Your task to perform on an android device: Add "macbook" to the cart on newegg Image 0: 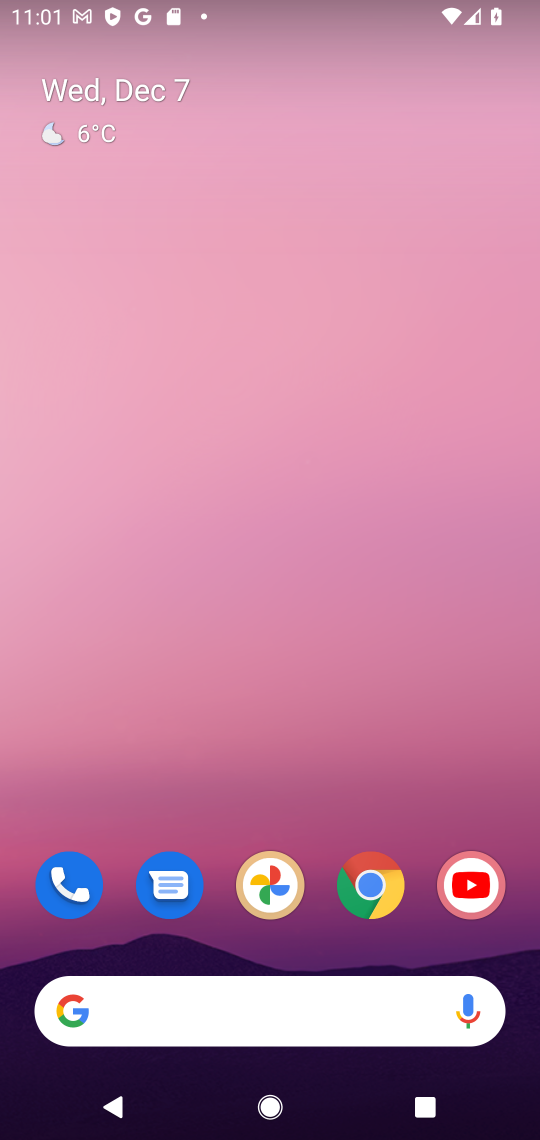
Step 0: click (369, 888)
Your task to perform on an android device: Add "macbook" to the cart on newegg Image 1: 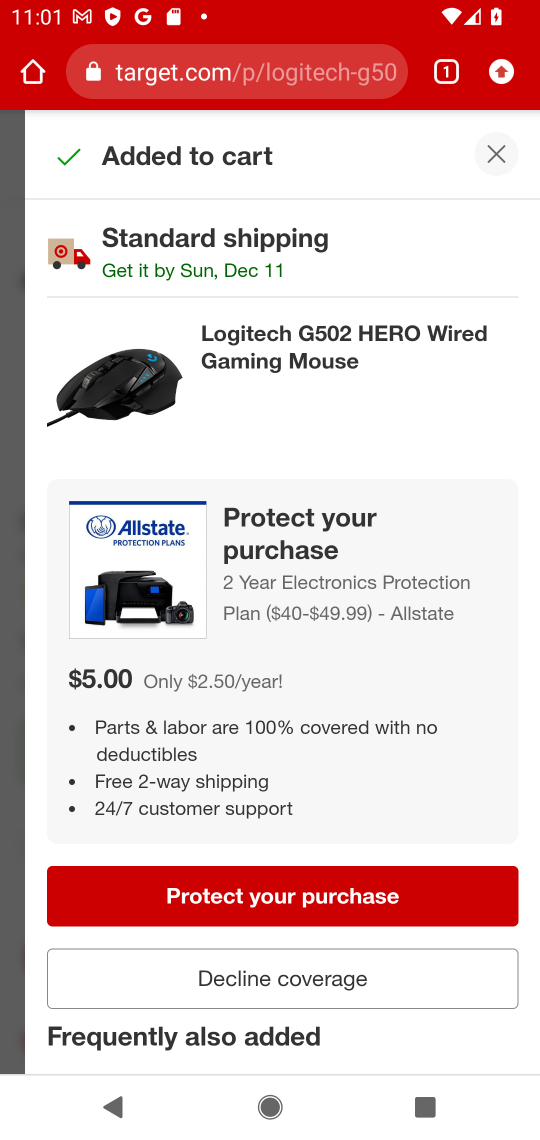
Step 1: click (290, 68)
Your task to perform on an android device: Add "macbook" to the cart on newegg Image 2: 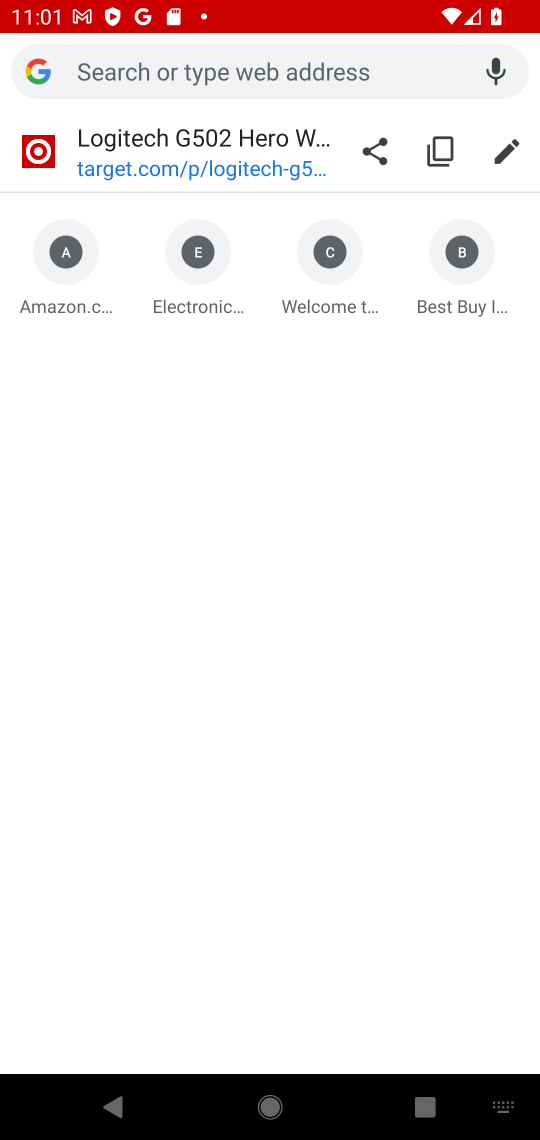
Step 2: type "NEWEGG"
Your task to perform on an android device: Add "macbook" to the cart on newegg Image 3: 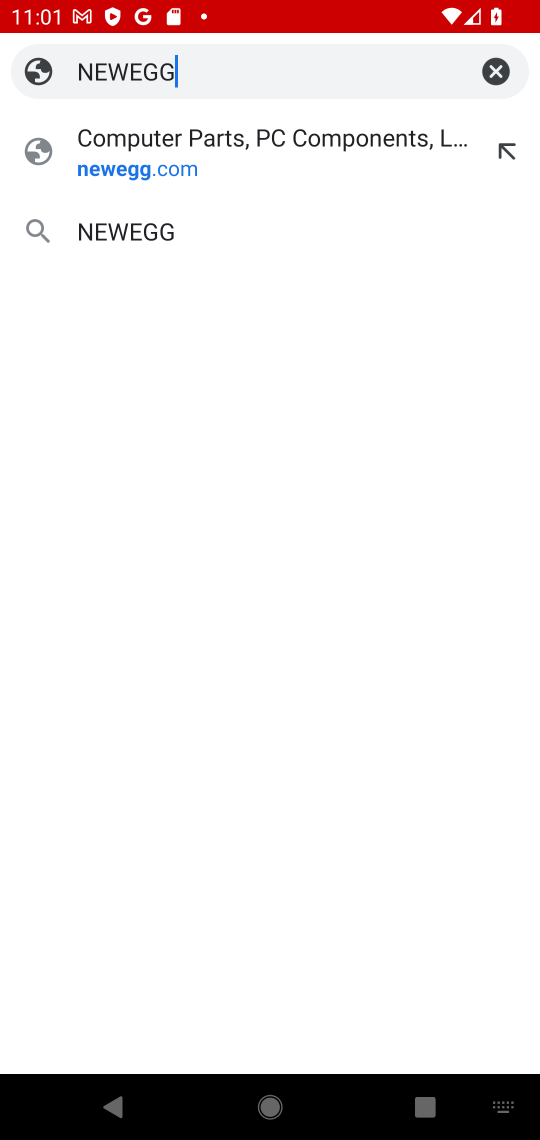
Step 3: click (205, 162)
Your task to perform on an android device: Add "macbook" to the cart on newegg Image 4: 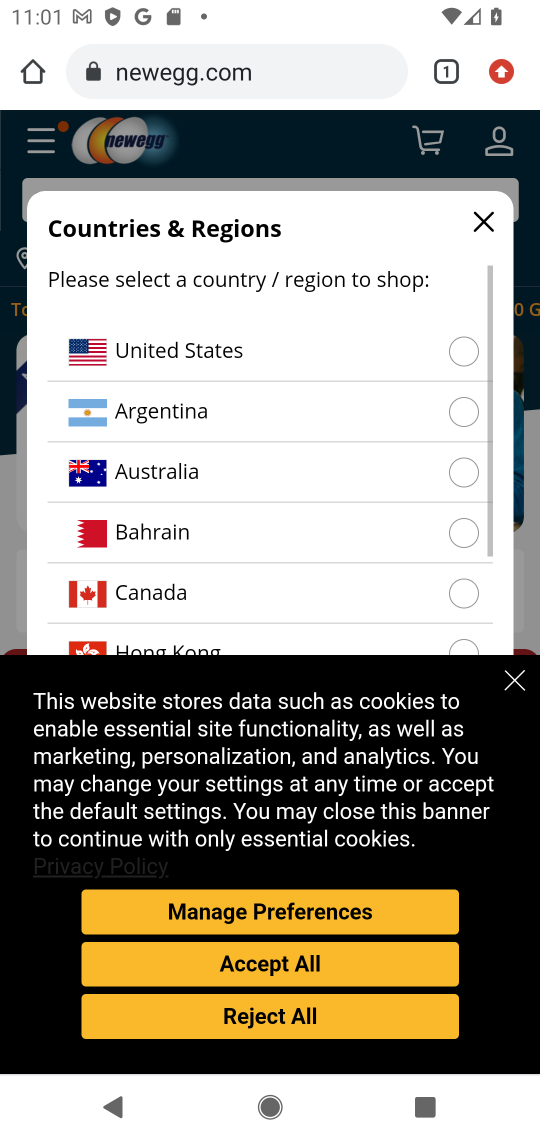
Step 4: click (284, 359)
Your task to perform on an android device: Add "macbook" to the cart on newegg Image 5: 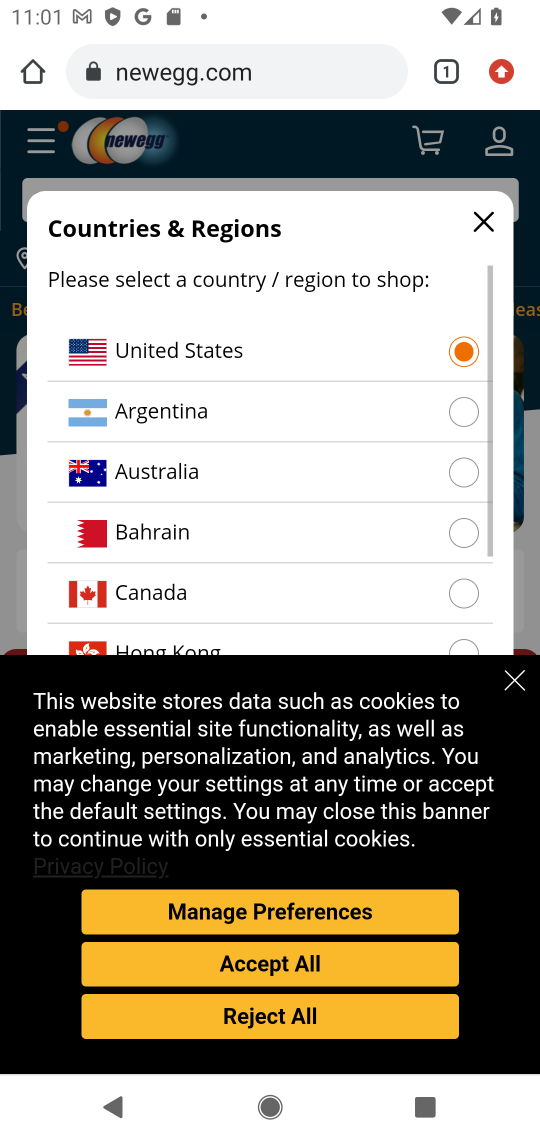
Step 5: click (515, 686)
Your task to perform on an android device: Add "macbook" to the cart on newegg Image 6: 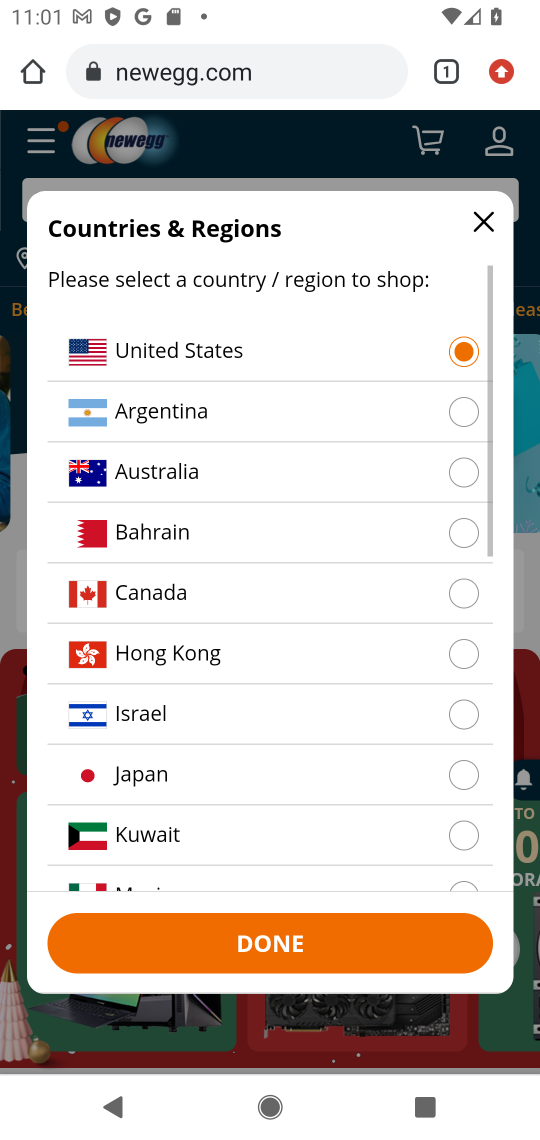
Step 6: click (337, 944)
Your task to perform on an android device: Add "macbook" to the cart on newegg Image 7: 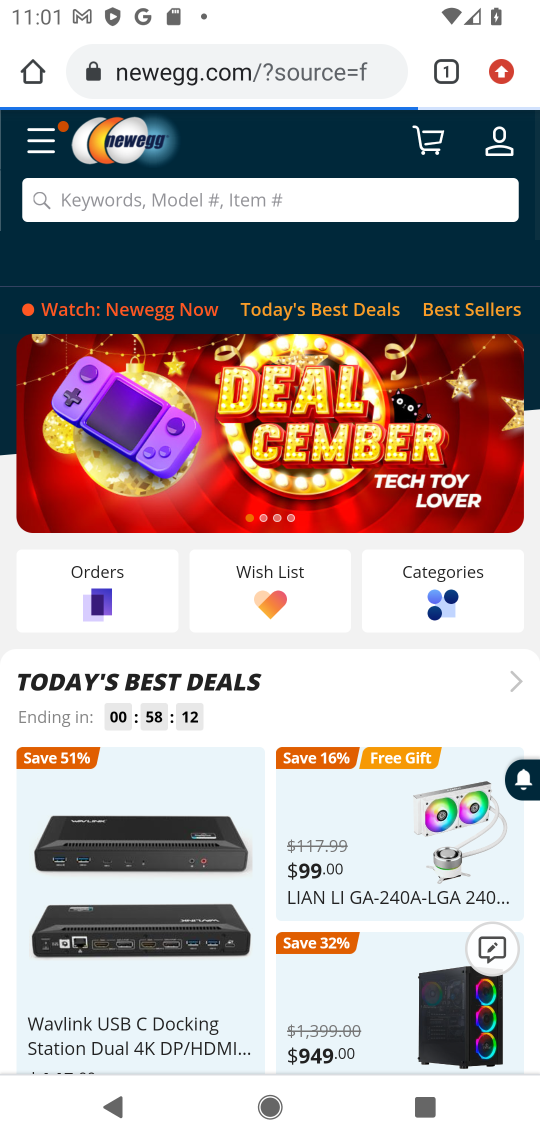
Step 7: click (278, 201)
Your task to perform on an android device: Add "macbook" to the cart on newegg Image 8: 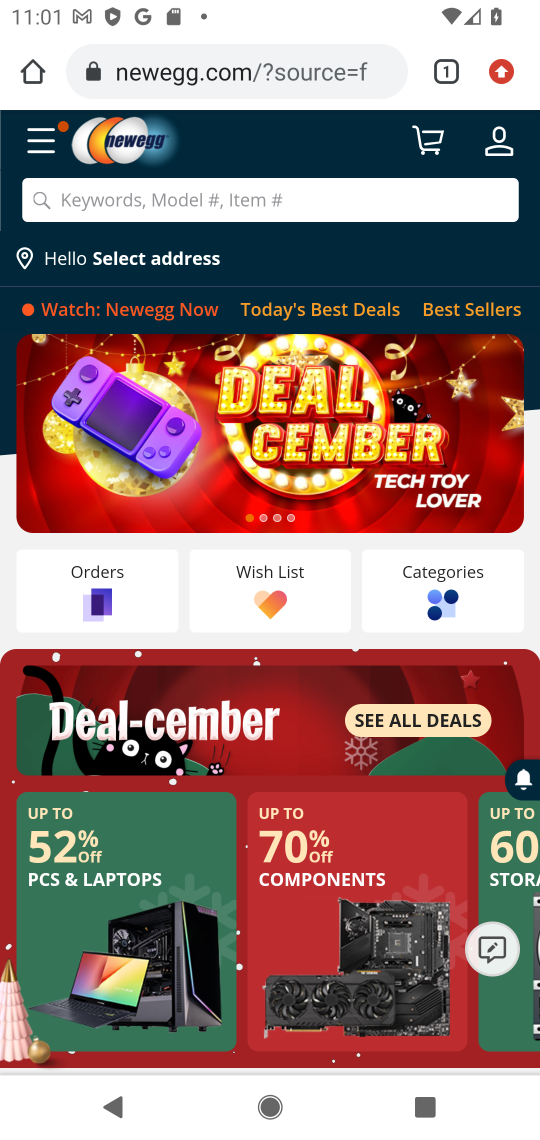
Step 8: click (278, 201)
Your task to perform on an android device: Add "macbook" to the cart on newegg Image 9: 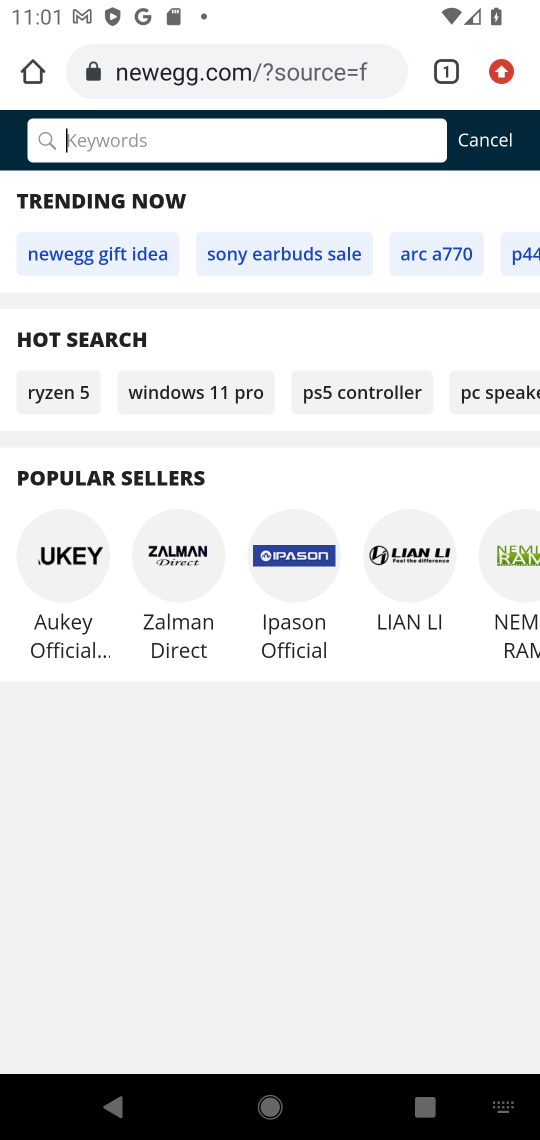
Step 9: type "MACBOOK"
Your task to perform on an android device: Add "macbook" to the cart on newegg Image 10: 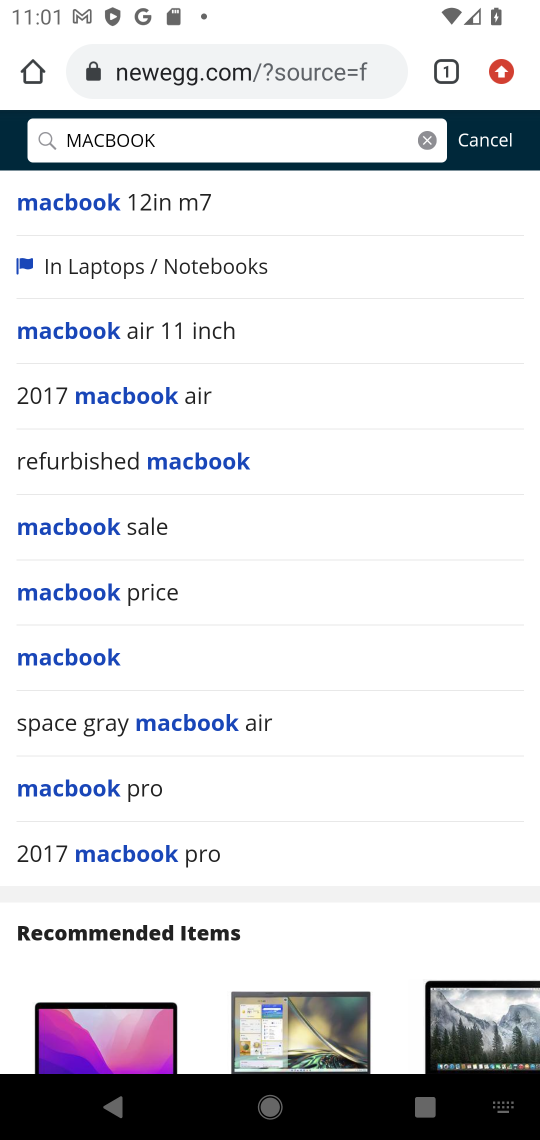
Step 10: click (97, 207)
Your task to perform on an android device: Add "macbook" to the cart on newegg Image 11: 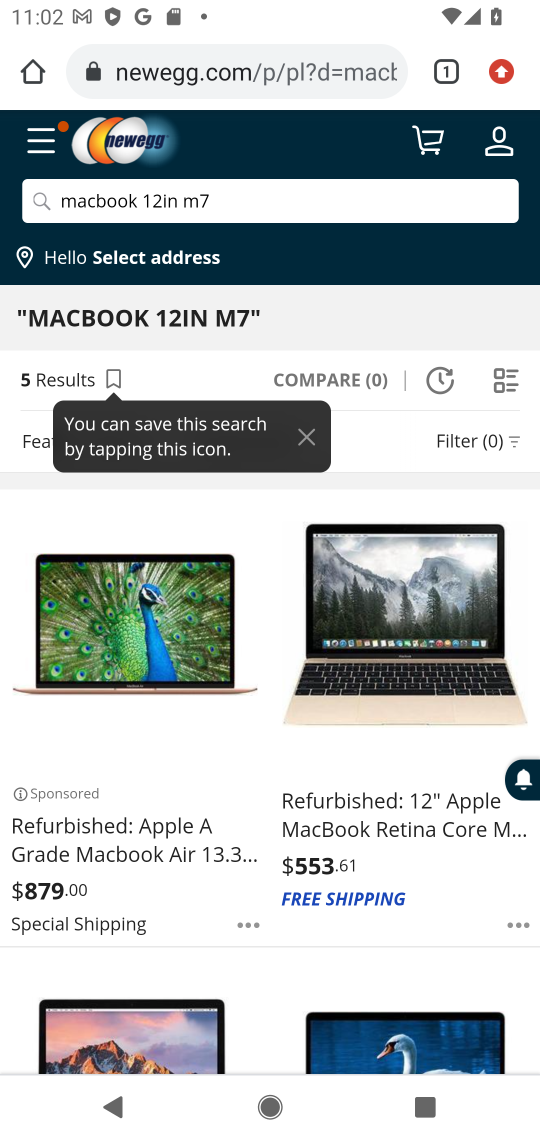
Step 11: click (157, 608)
Your task to perform on an android device: Add "macbook" to the cart on newegg Image 12: 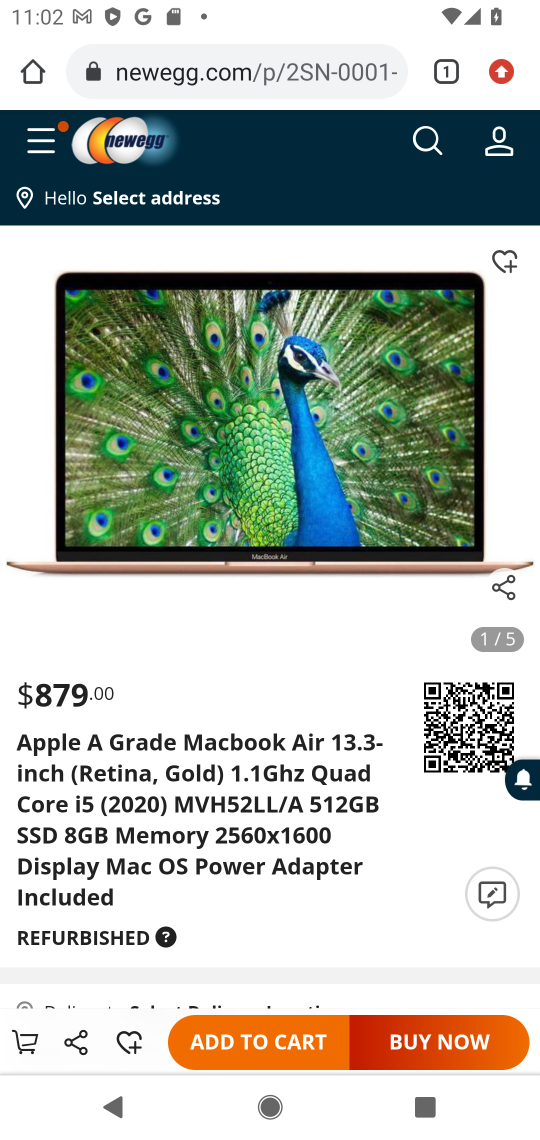
Step 12: click (262, 1048)
Your task to perform on an android device: Add "macbook" to the cart on newegg Image 13: 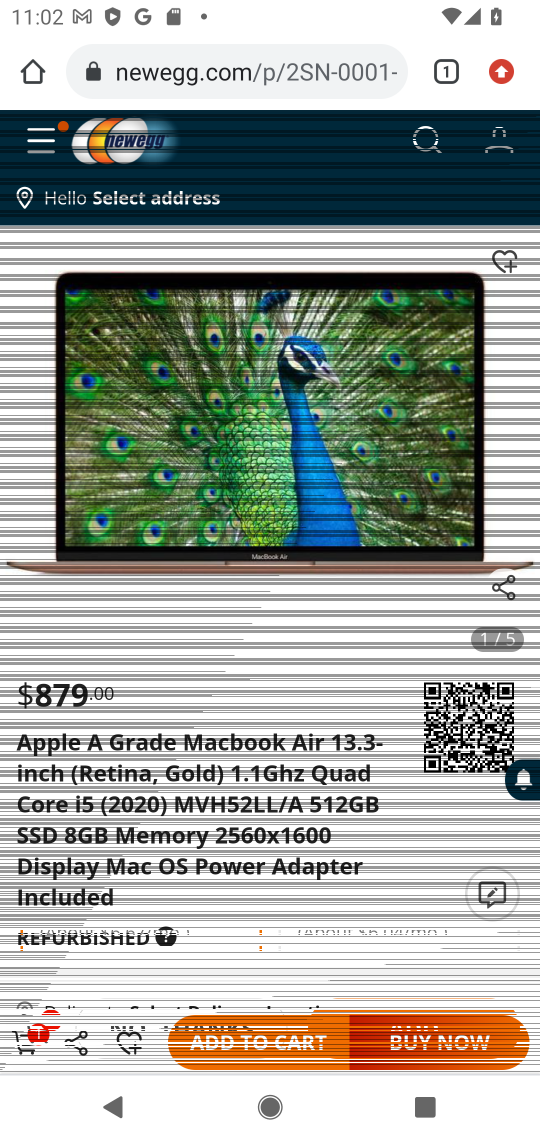
Step 13: click (270, 1041)
Your task to perform on an android device: Add "macbook" to the cart on newegg Image 14: 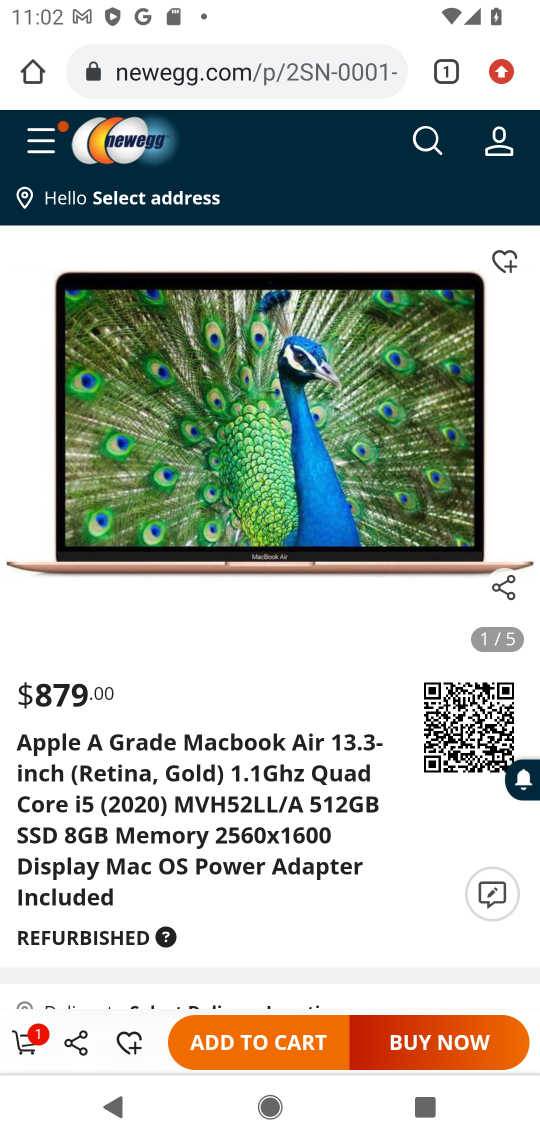
Step 14: task complete